Your task to perform on an android device: Is it going to rain this weekend? Image 0: 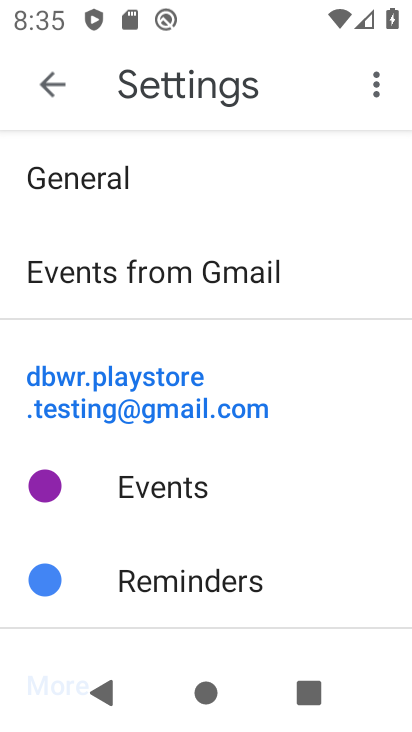
Step 0: press back button
Your task to perform on an android device: Is it going to rain this weekend? Image 1: 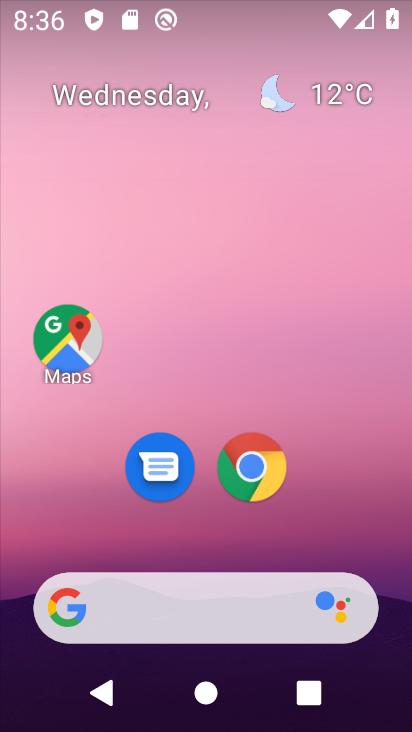
Step 1: click (305, 100)
Your task to perform on an android device: Is it going to rain this weekend? Image 2: 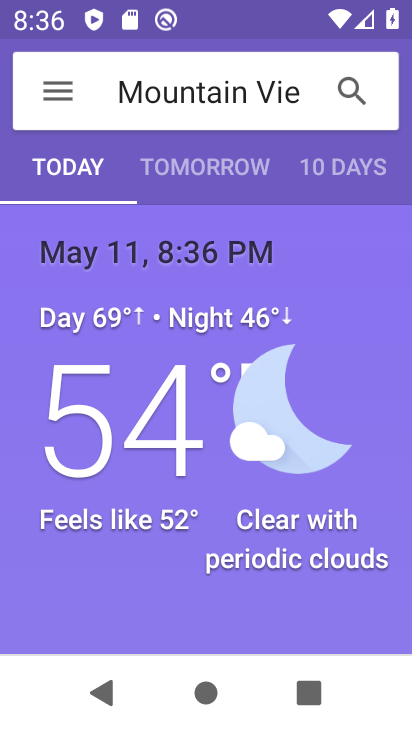
Step 2: click (381, 151)
Your task to perform on an android device: Is it going to rain this weekend? Image 3: 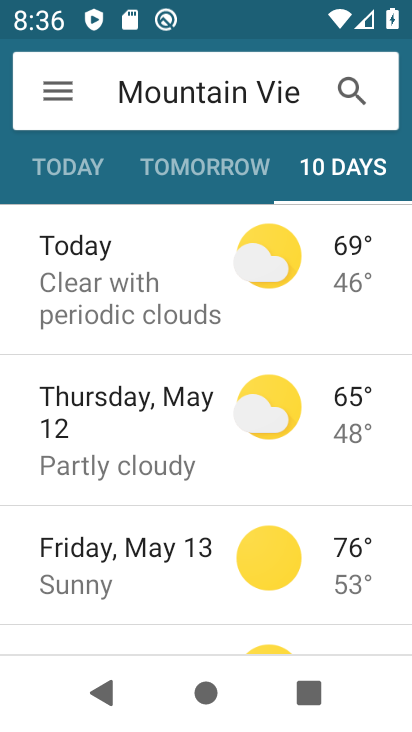
Step 3: task complete